Your task to perform on an android device: Go to Google maps Image 0: 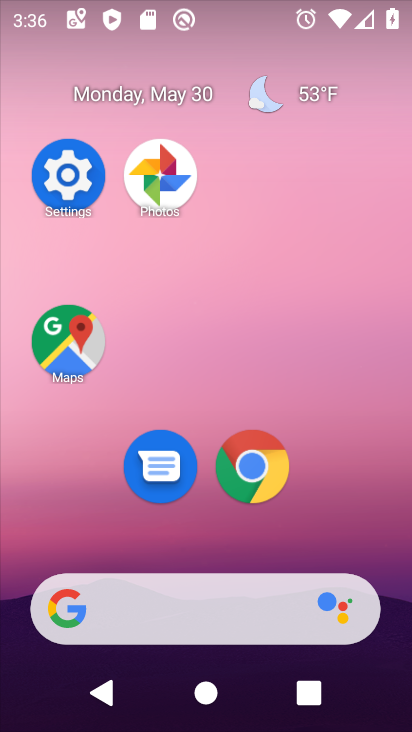
Step 0: click (81, 337)
Your task to perform on an android device: Go to Google maps Image 1: 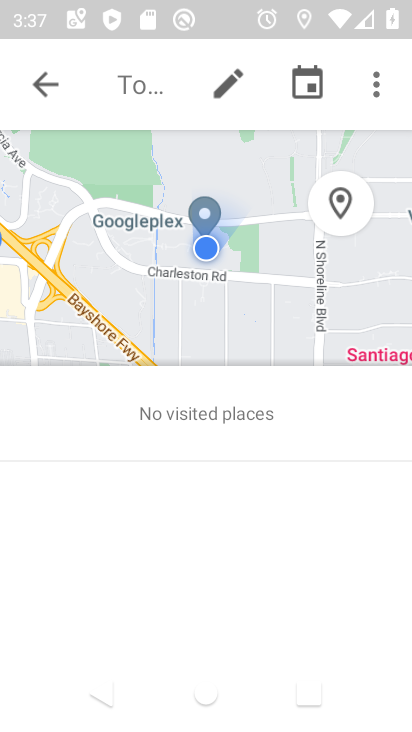
Step 1: task complete